Your task to perform on an android device: Open Reddit.com Image 0: 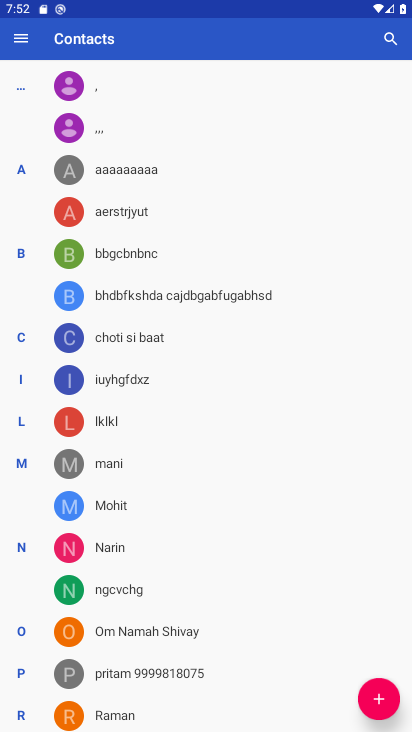
Step 0: press home button
Your task to perform on an android device: Open Reddit.com Image 1: 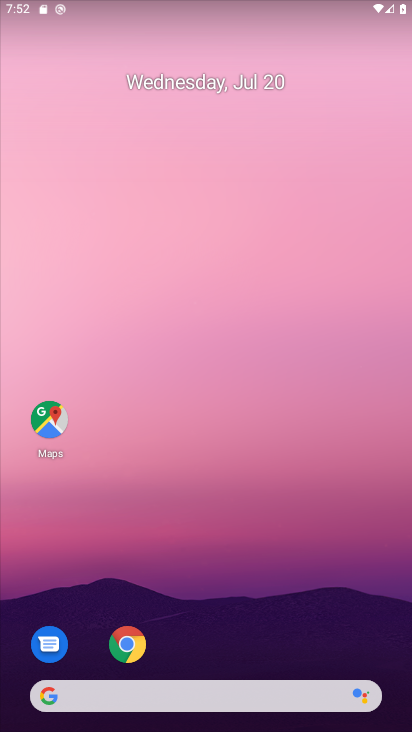
Step 1: drag from (160, 679) to (148, 252)
Your task to perform on an android device: Open Reddit.com Image 2: 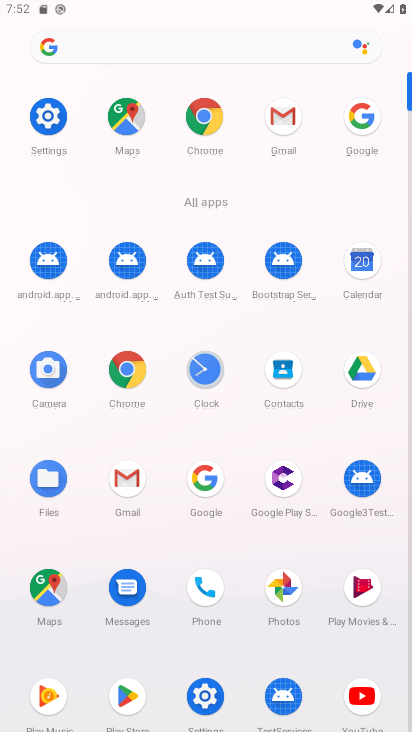
Step 2: click (196, 479)
Your task to perform on an android device: Open Reddit.com Image 3: 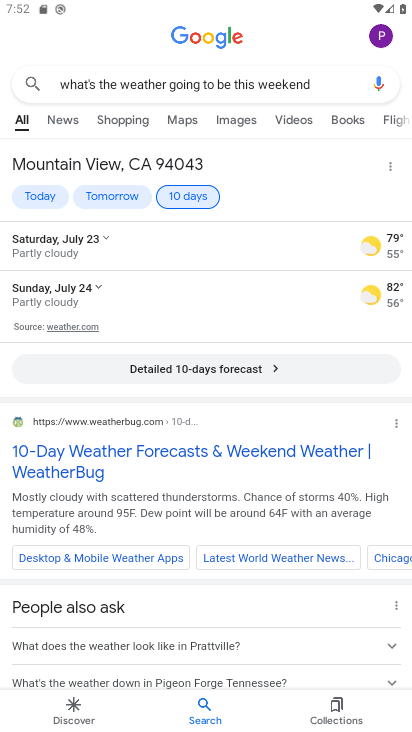
Step 3: click (323, 82)
Your task to perform on an android device: Open Reddit.com Image 4: 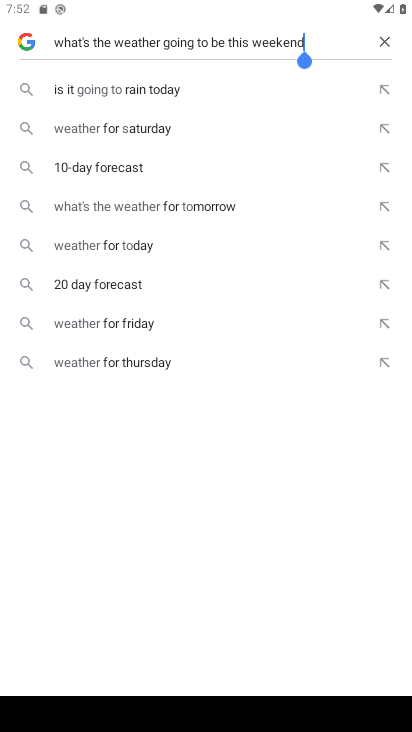
Step 4: click (377, 41)
Your task to perform on an android device: Open Reddit.com Image 5: 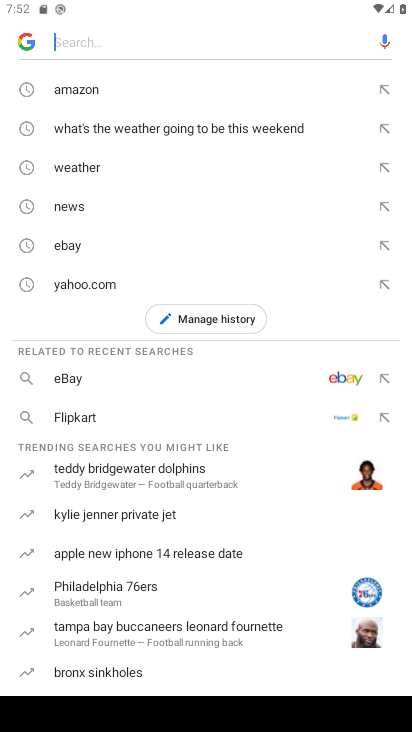
Step 5: type " Reddit.com"
Your task to perform on an android device: Open Reddit.com Image 6: 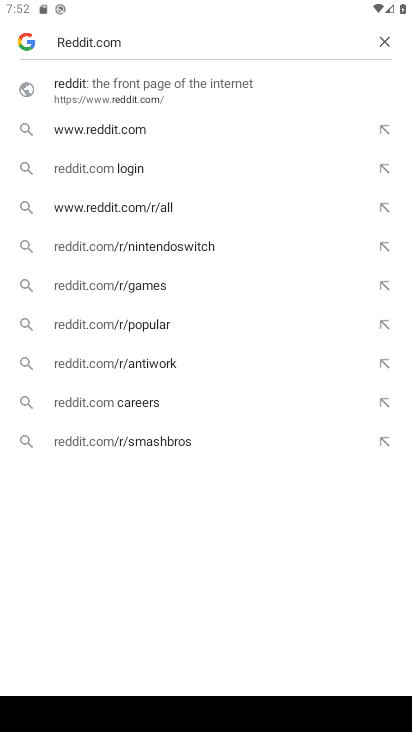
Step 6: click (59, 92)
Your task to perform on an android device: Open Reddit.com Image 7: 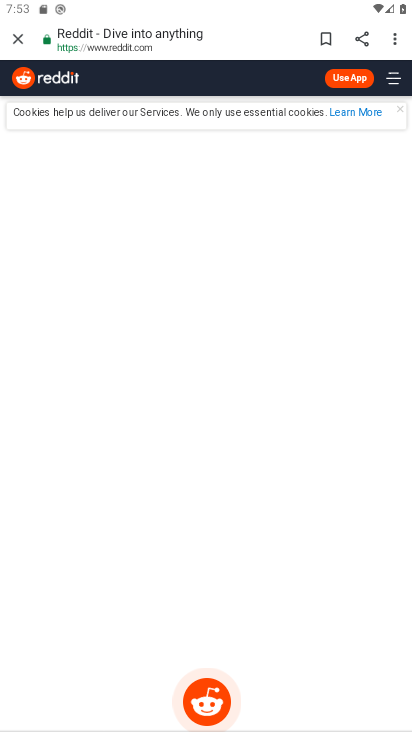
Step 7: task complete